Your task to perform on an android device: turn off priority inbox in the gmail app Image 0: 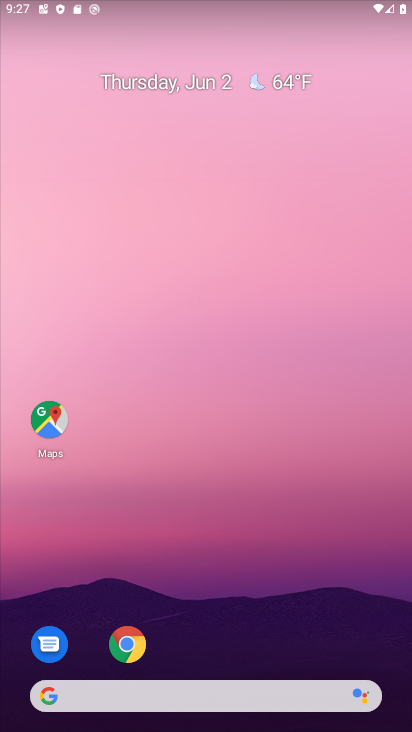
Step 0: drag from (234, 644) to (147, 0)
Your task to perform on an android device: turn off priority inbox in the gmail app Image 1: 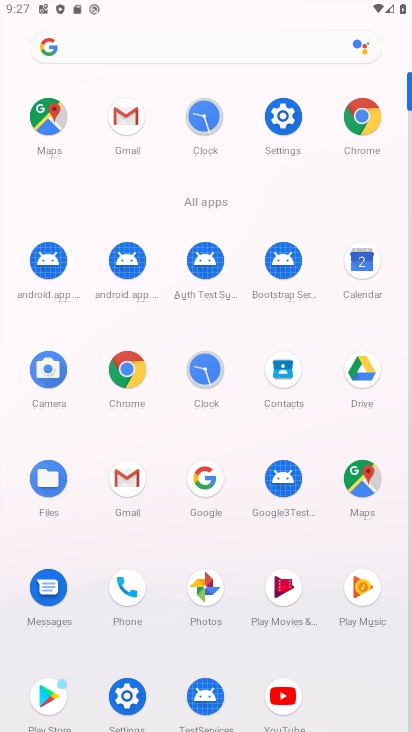
Step 1: click (105, 123)
Your task to perform on an android device: turn off priority inbox in the gmail app Image 2: 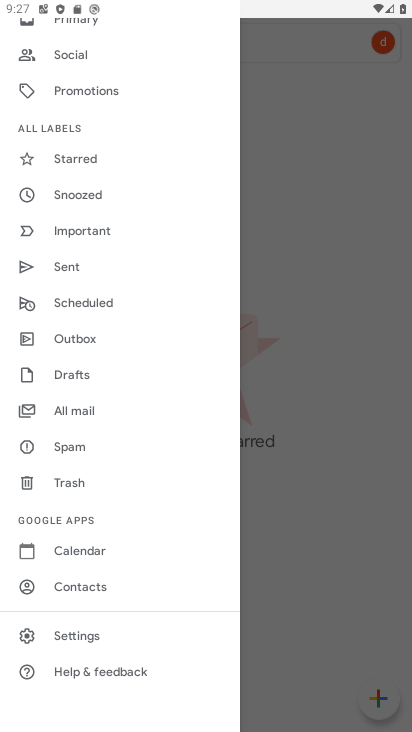
Step 2: click (54, 637)
Your task to perform on an android device: turn off priority inbox in the gmail app Image 3: 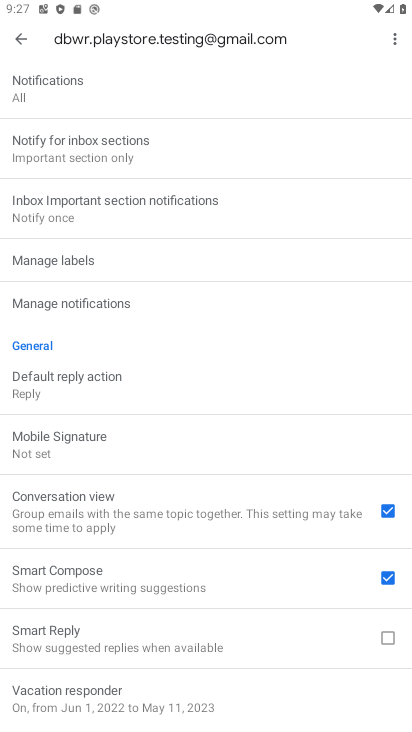
Step 3: drag from (213, 123) to (161, 713)
Your task to perform on an android device: turn off priority inbox in the gmail app Image 4: 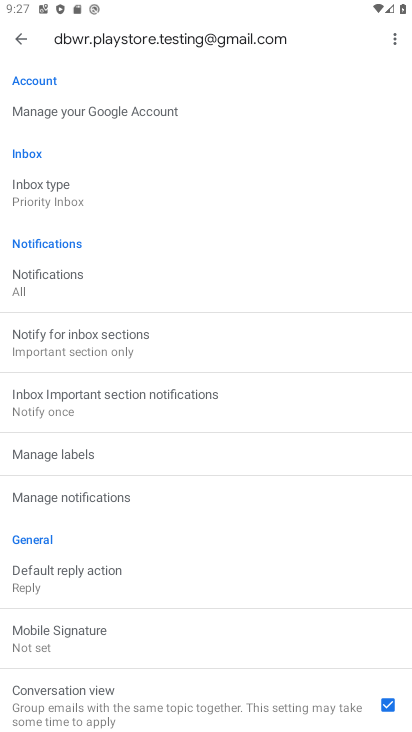
Step 4: click (56, 199)
Your task to perform on an android device: turn off priority inbox in the gmail app Image 5: 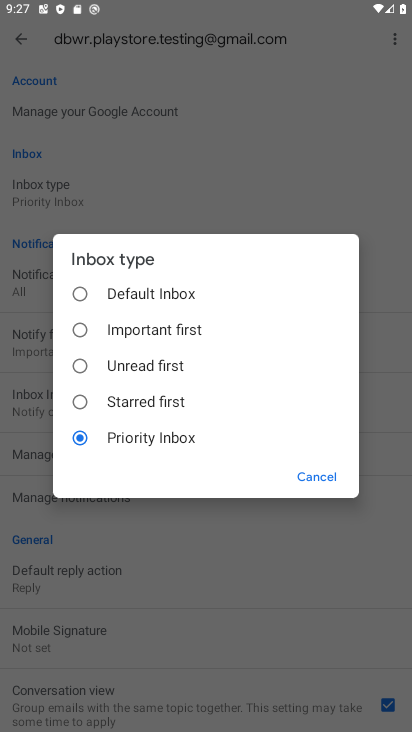
Step 5: click (114, 294)
Your task to perform on an android device: turn off priority inbox in the gmail app Image 6: 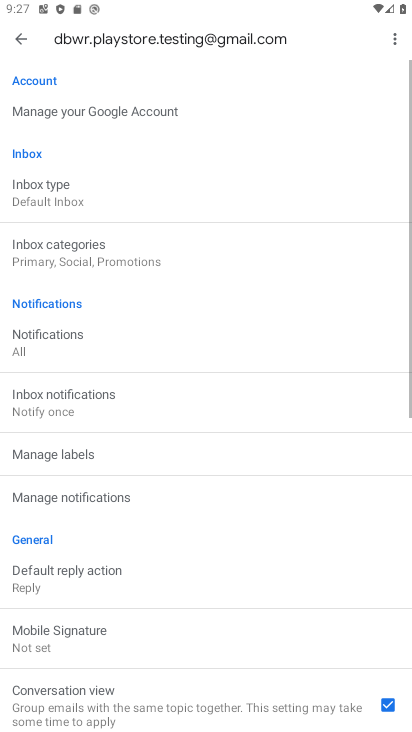
Step 6: task complete